Your task to perform on an android device: Go to Reddit.com Image 0: 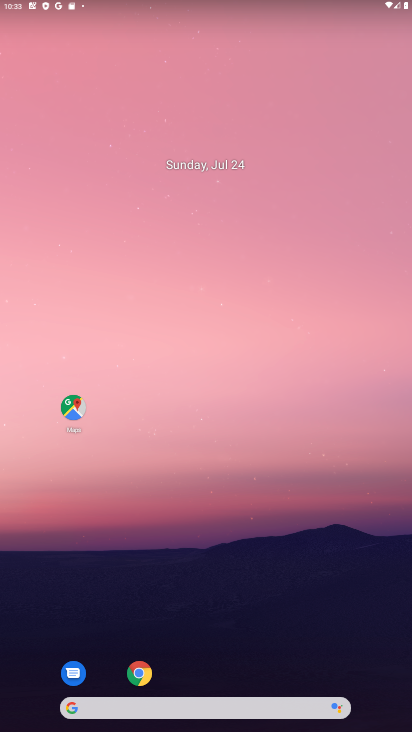
Step 0: click (102, 703)
Your task to perform on an android device: Go to Reddit.com Image 1: 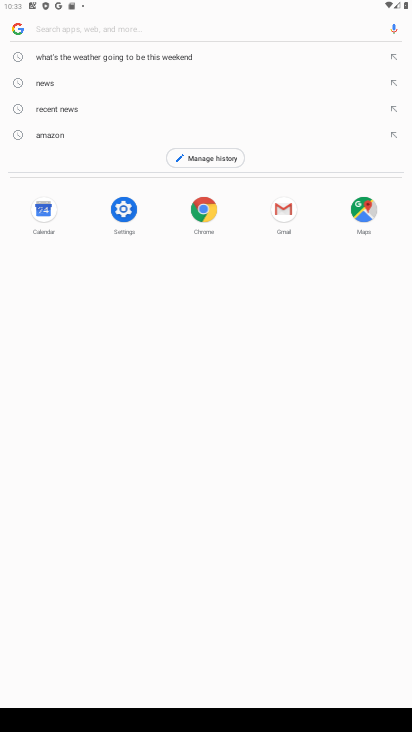
Step 1: type "Reddit.com"
Your task to perform on an android device: Go to Reddit.com Image 2: 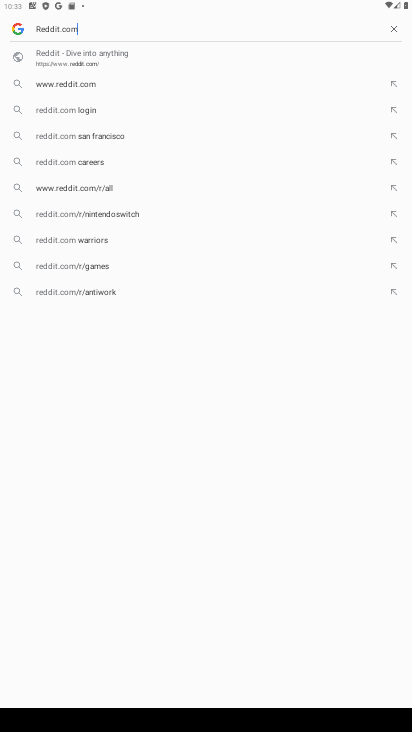
Step 2: type ""
Your task to perform on an android device: Go to Reddit.com Image 3: 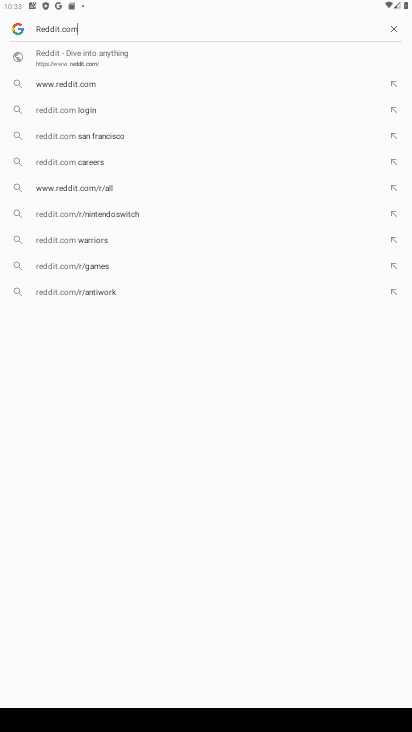
Step 3: type ""
Your task to perform on an android device: Go to Reddit.com Image 4: 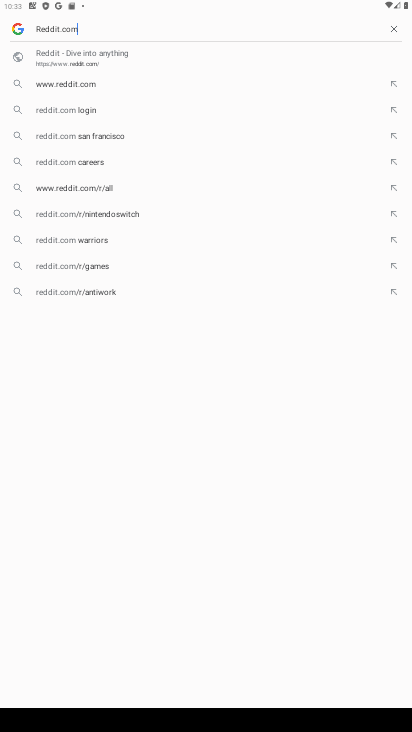
Step 4: task complete